Your task to perform on an android device: Add lg ultragear to the cart on target Image 0: 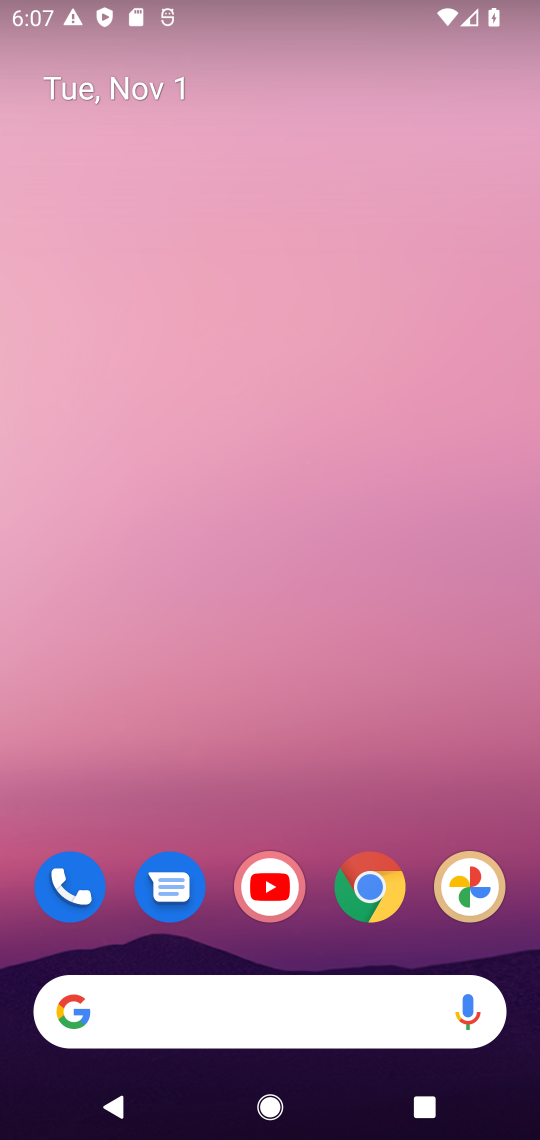
Step 0: press home button
Your task to perform on an android device: Add lg ultragear to the cart on target Image 1: 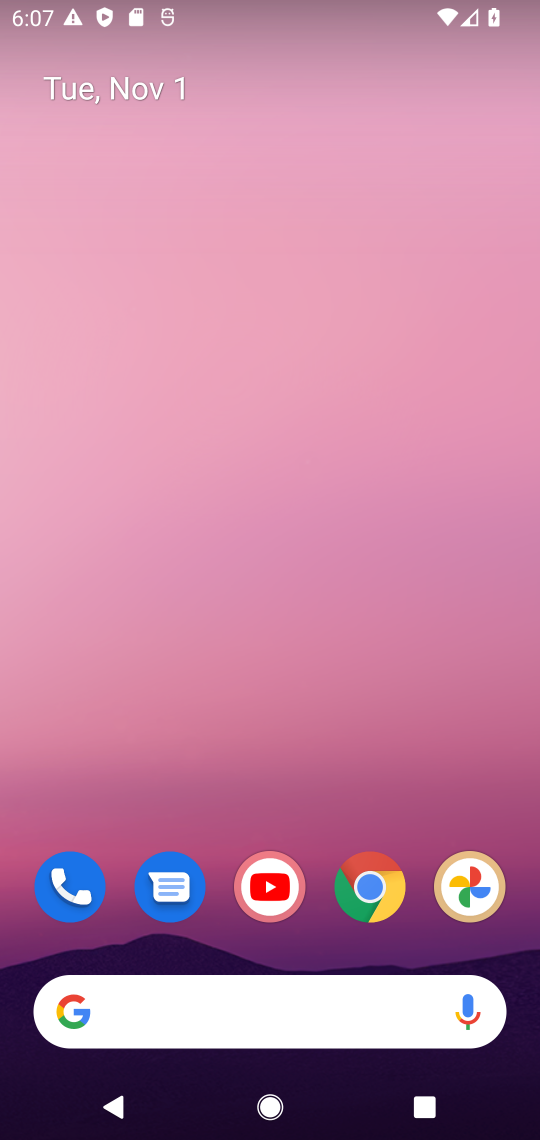
Step 1: drag from (307, 835) to (346, 161)
Your task to perform on an android device: Add lg ultragear to the cart on target Image 2: 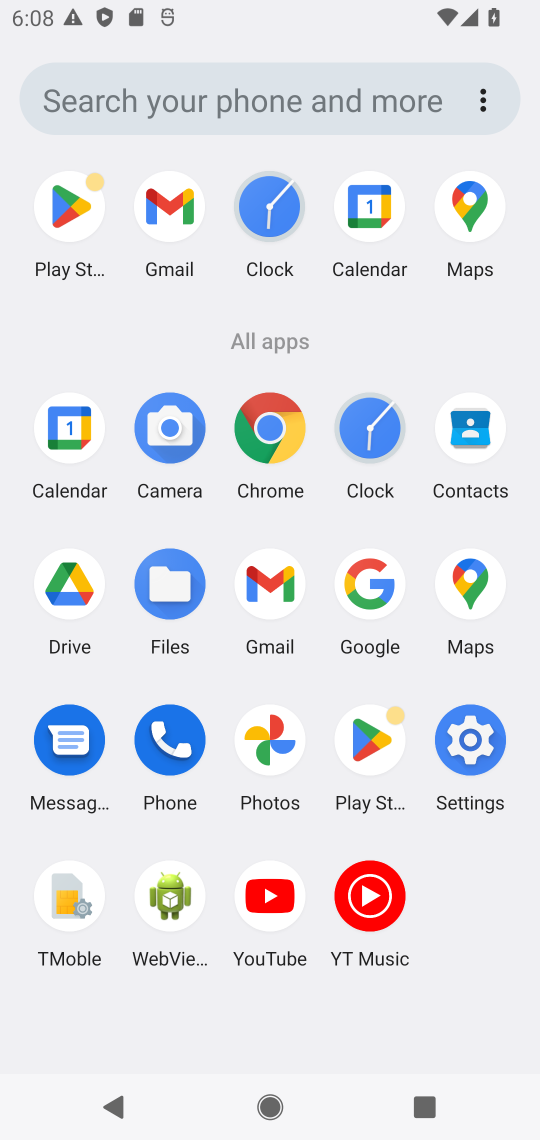
Step 2: click (260, 418)
Your task to perform on an android device: Add lg ultragear to the cart on target Image 3: 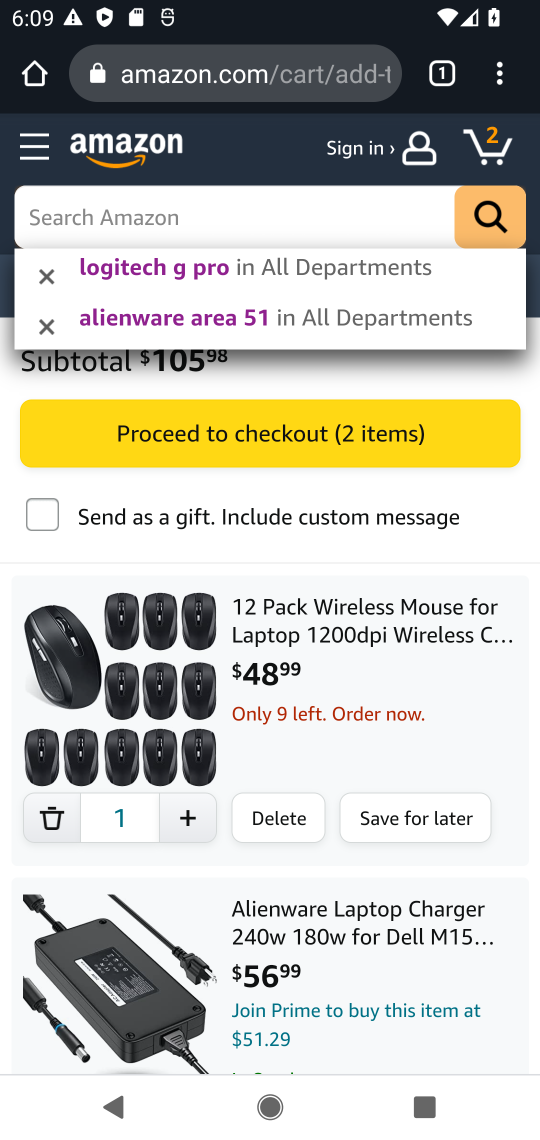
Step 3: click (171, 63)
Your task to perform on an android device: Add lg ultragear to the cart on target Image 4: 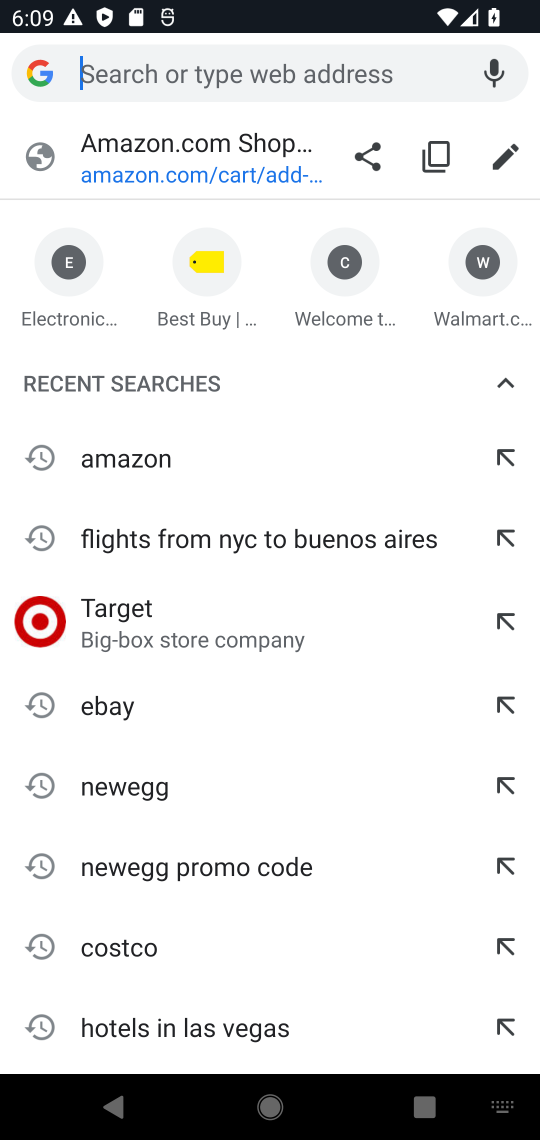
Step 4: type "target"
Your task to perform on an android device: Add lg ultragear to the cart on target Image 5: 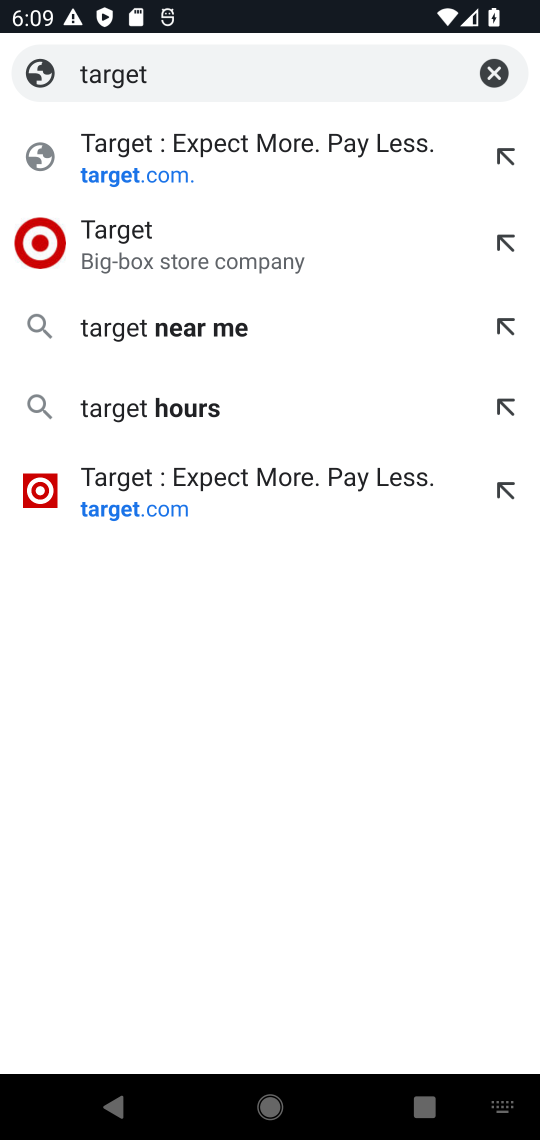
Step 5: click (115, 170)
Your task to perform on an android device: Add lg ultragear to the cart on target Image 6: 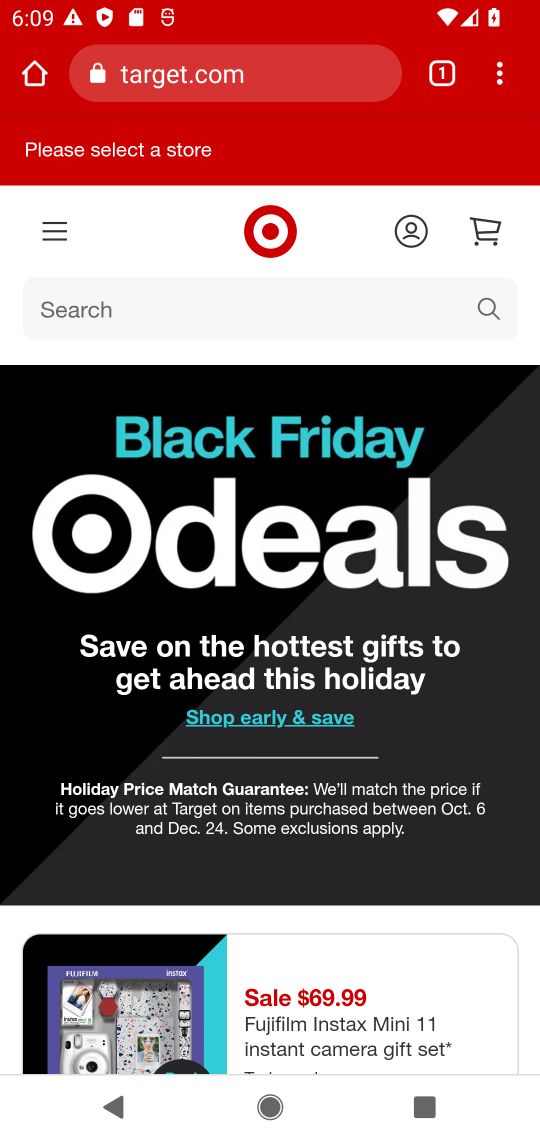
Step 6: drag from (266, 943) to (221, 322)
Your task to perform on an android device: Add lg ultragear to the cart on target Image 7: 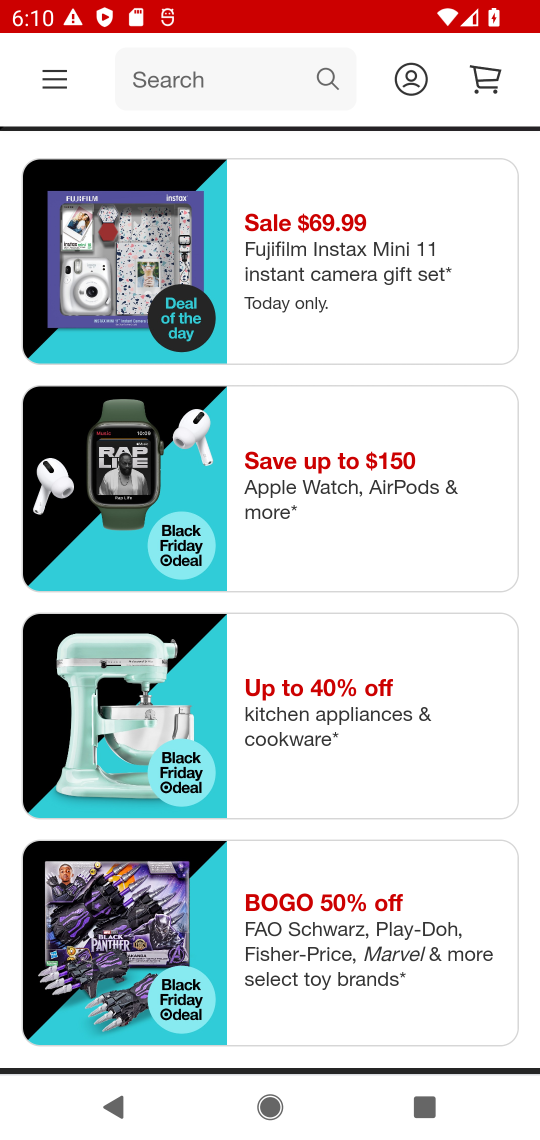
Step 7: click (143, 79)
Your task to perform on an android device: Add lg ultragear to the cart on target Image 8: 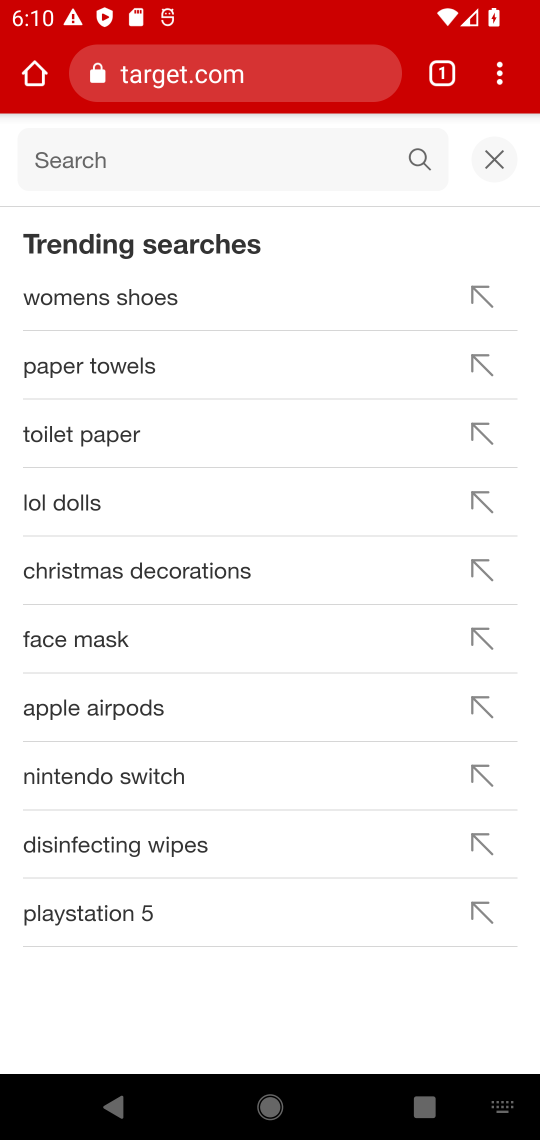
Step 8: type " lg ultragear"
Your task to perform on an android device: Add lg ultragear to the cart on target Image 9: 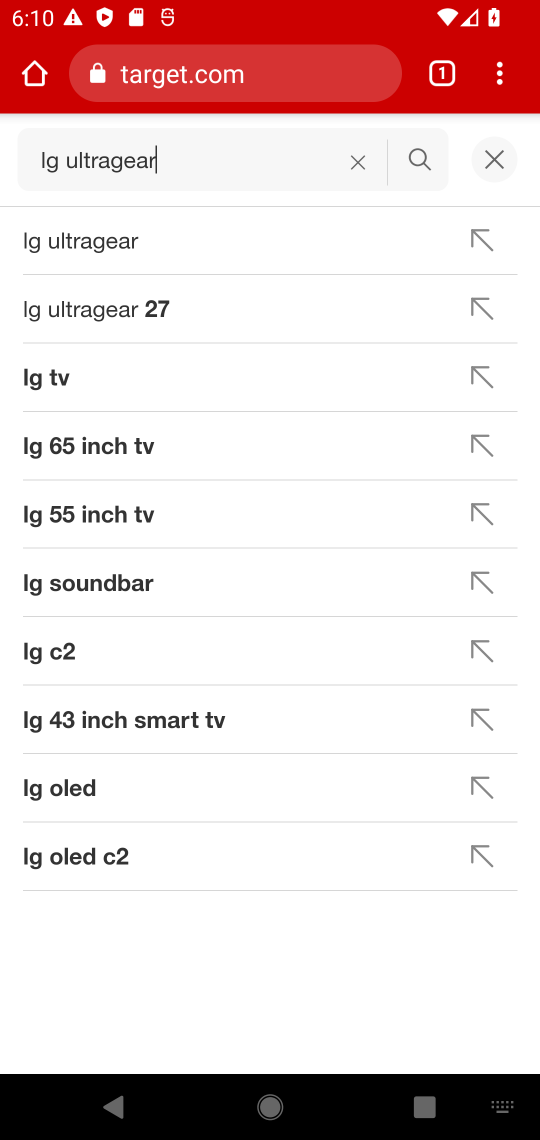
Step 9: click (163, 231)
Your task to perform on an android device: Add lg ultragear to the cart on target Image 10: 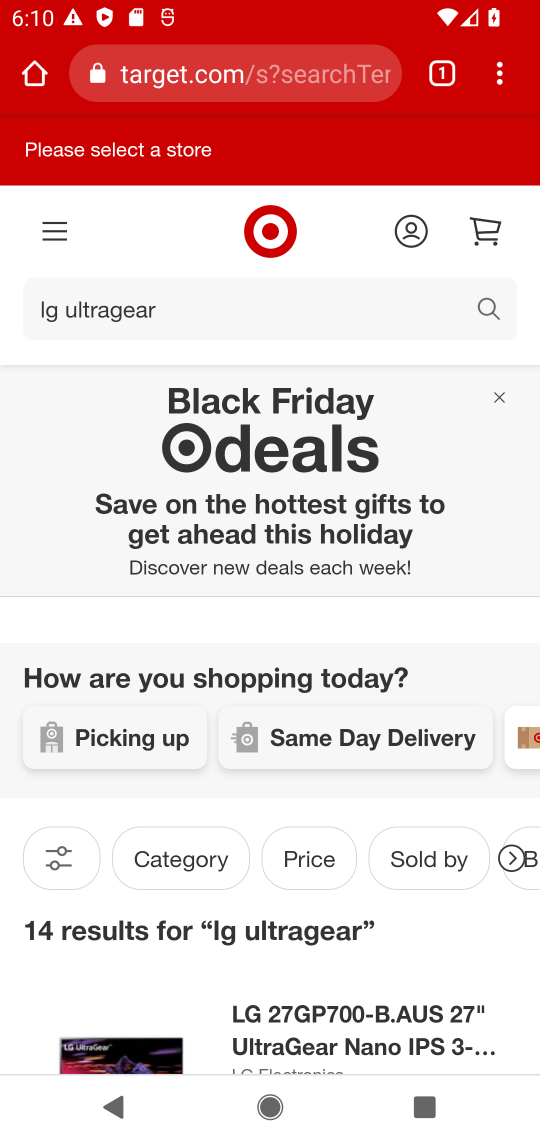
Step 10: drag from (255, 783) to (263, 282)
Your task to perform on an android device: Add lg ultragear to the cart on target Image 11: 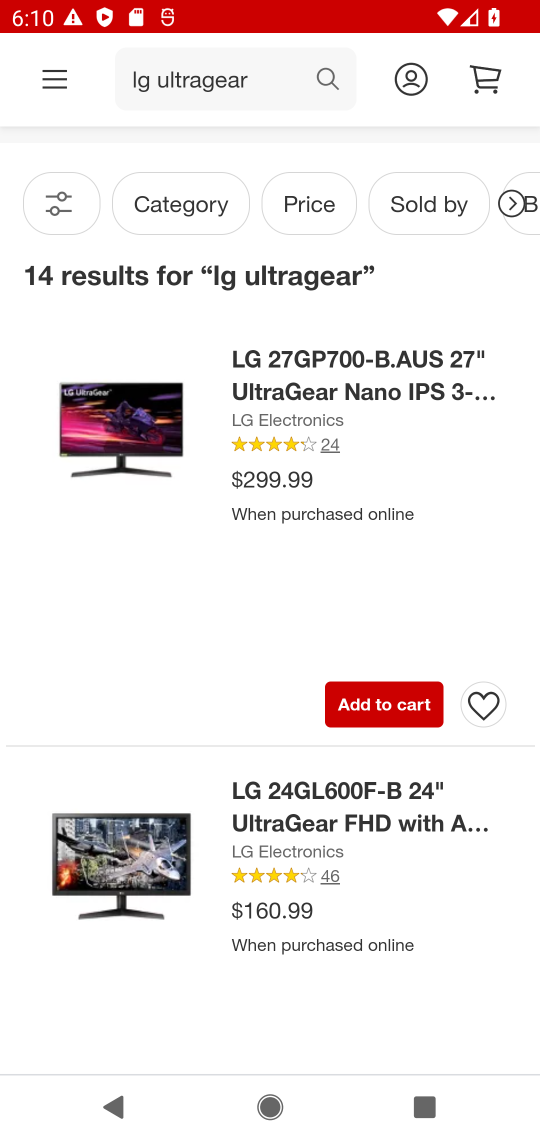
Step 11: click (283, 372)
Your task to perform on an android device: Add lg ultragear to the cart on target Image 12: 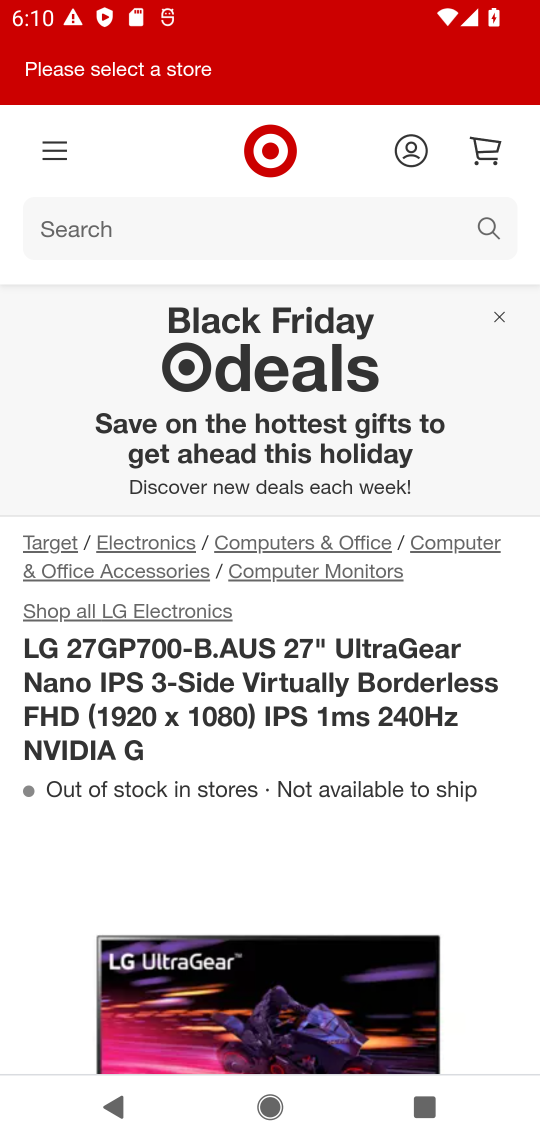
Step 12: drag from (265, 860) to (261, 180)
Your task to perform on an android device: Add lg ultragear to the cart on target Image 13: 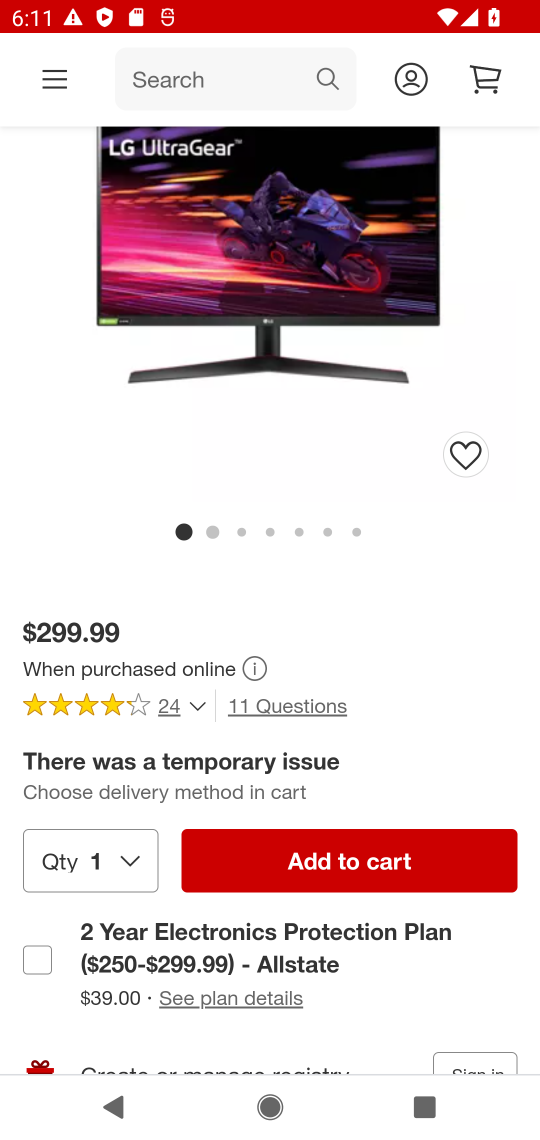
Step 13: click (355, 868)
Your task to perform on an android device: Add lg ultragear to the cart on target Image 14: 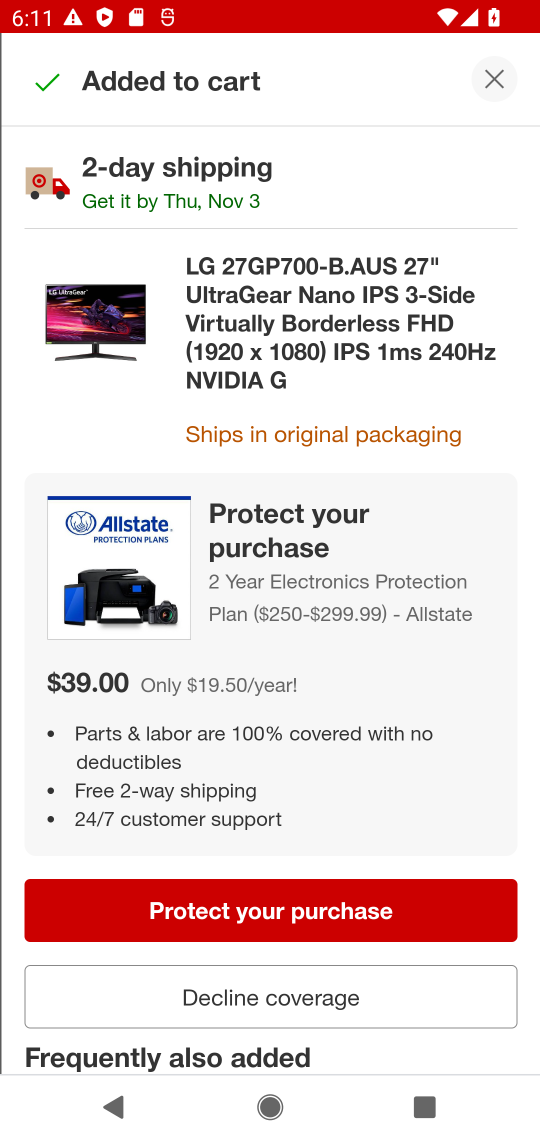
Step 14: click (487, 81)
Your task to perform on an android device: Add lg ultragear to the cart on target Image 15: 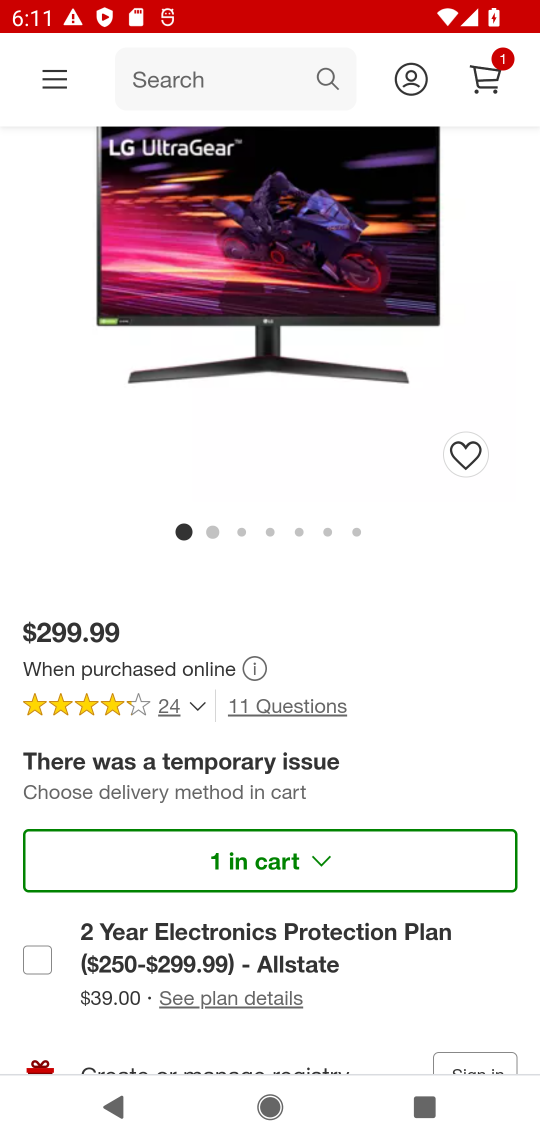
Step 15: click (493, 57)
Your task to perform on an android device: Add lg ultragear to the cart on target Image 16: 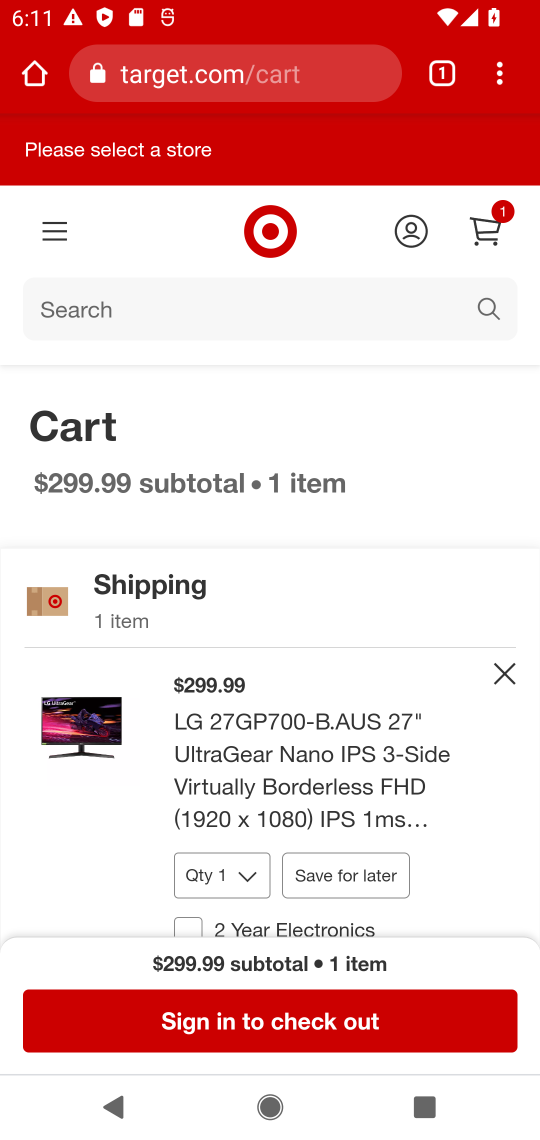
Step 16: task complete